Your task to perform on an android device: Set the phone to "Do not disturb". Image 0: 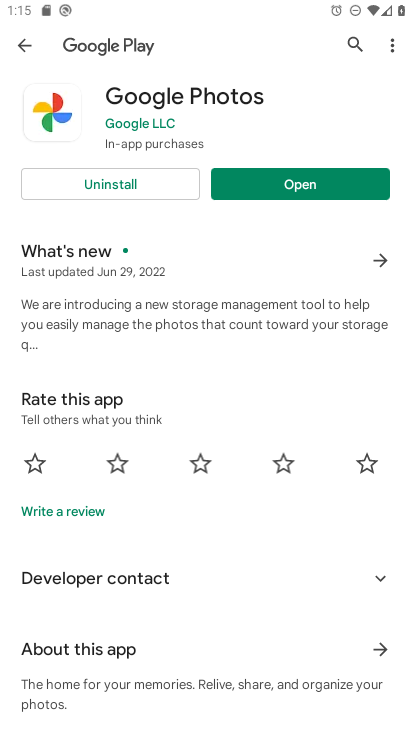
Step 0: press home button
Your task to perform on an android device: Set the phone to "Do not disturb". Image 1: 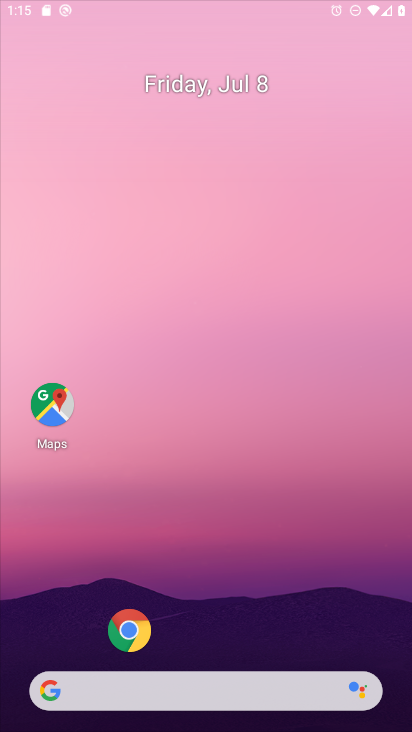
Step 1: drag from (278, 699) to (283, 87)
Your task to perform on an android device: Set the phone to "Do not disturb". Image 2: 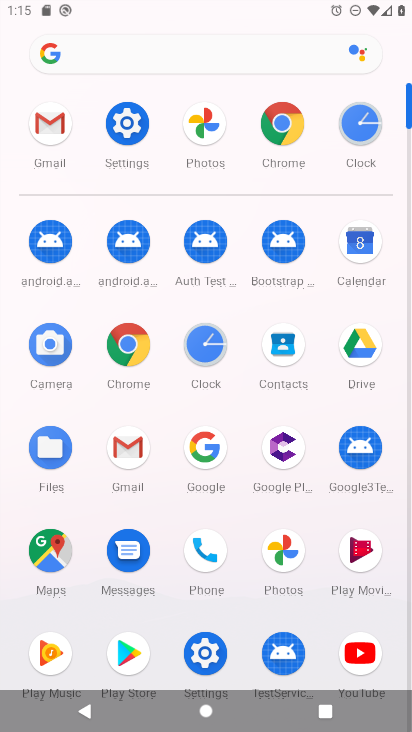
Step 2: click (131, 119)
Your task to perform on an android device: Set the phone to "Do not disturb". Image 3: 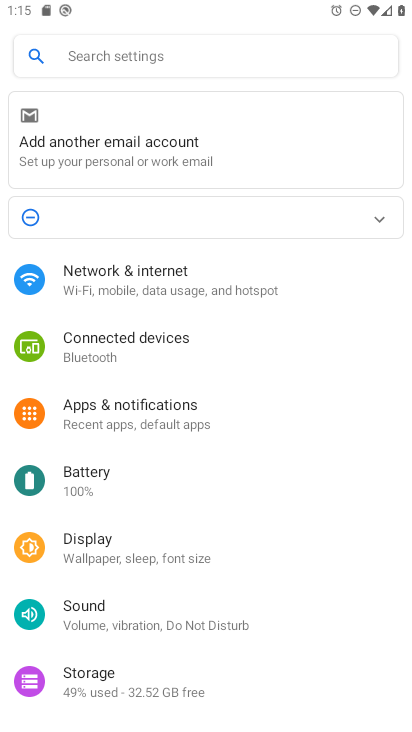
Step 3: click (149, 611)
Your task to perform on an android device: Set the phone to "Do not disturb". Image 4: 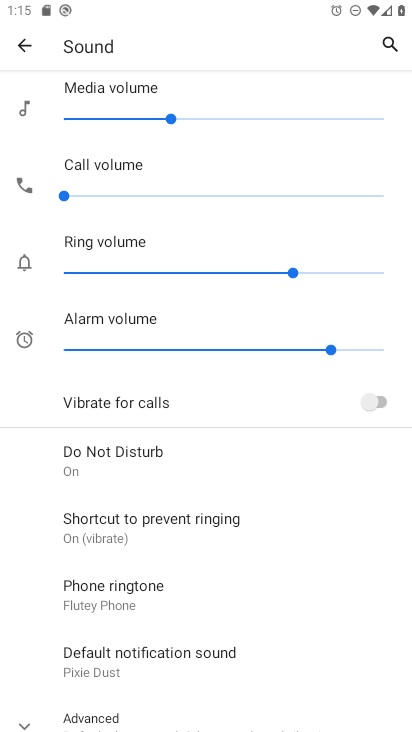
Step 4: click (137, 462)
Your task to perform on an android device: Set the phone to "Do not disturb". Image 5: 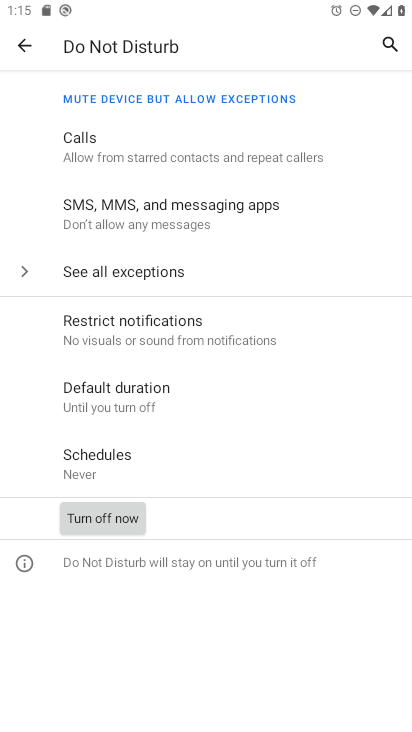
Step 5: task complete